Your task to perform on an android device: turn on showing notifications on the lock screen Image 0: 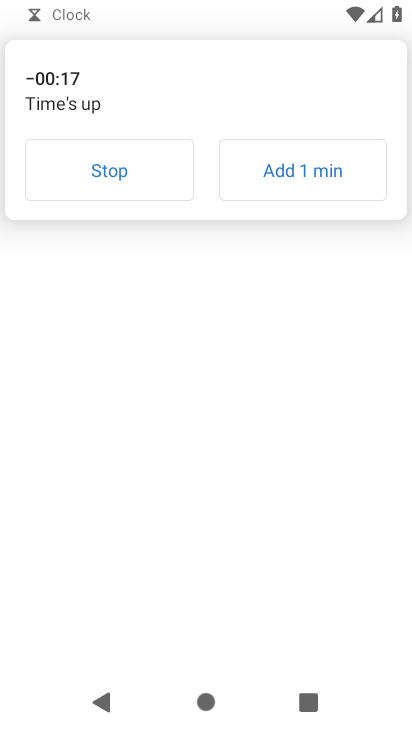
Step 0: press home button
Your task to perform on an android device: turn on showing notifications on the lock screen Image 1: 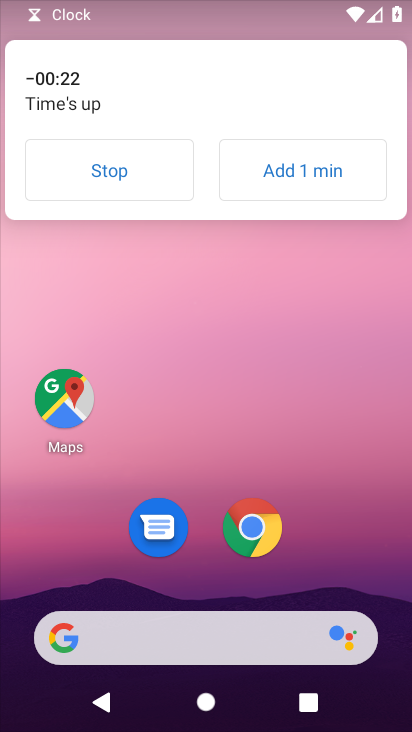
Step 1: click (119, 149)
Your task to perform on an android device: turn on showing notifications on the lock screen Image 2: 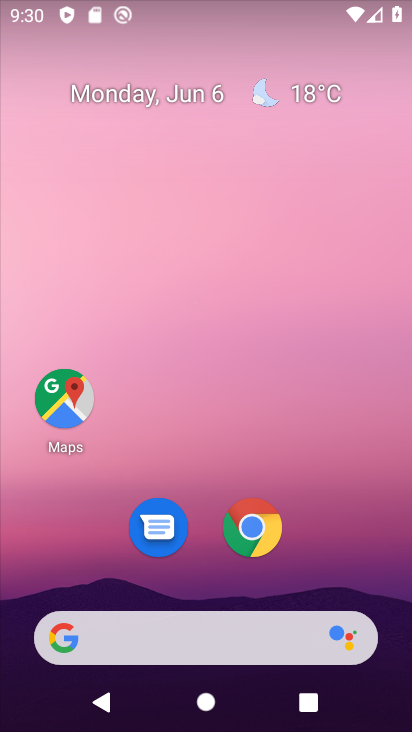
Step 2: drag from (219, 599) to (185, 207)
Your task to perform on an android device: turn on showing notifications on the lock screen Image 3: 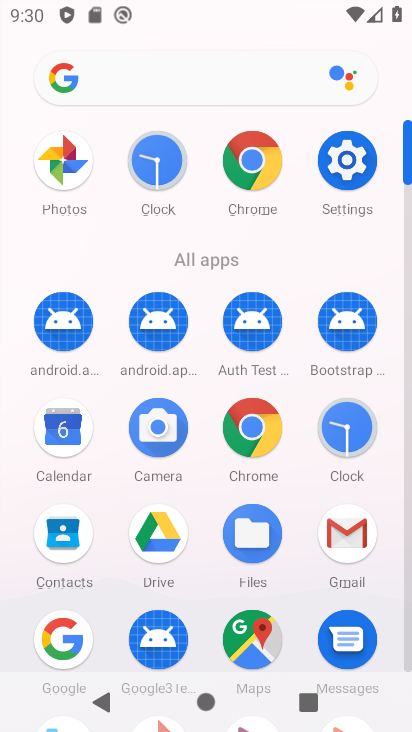
Step 3: click (336, 167)
Your task to perform on an android device: turn on showing notifications on the lock screen Image 4: 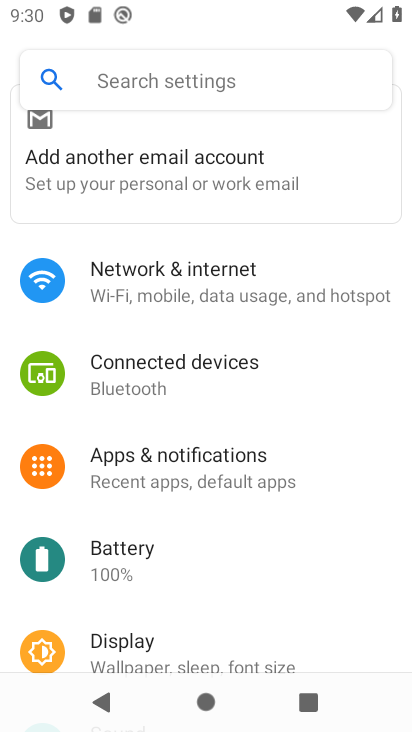
Step 4: click (170, 488)
Your task to perform on an android device: turn on showing notifications on the lock screen Image 5: 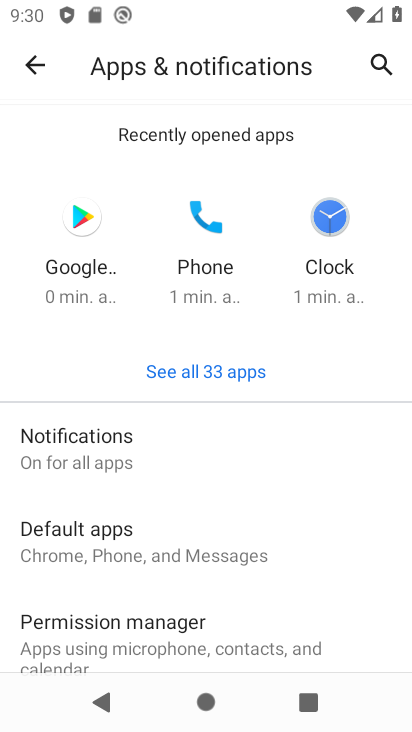
Step 5: click (124, 434)
Your task to perform on an android device: turn on showing notifications on the lock screen Image 6: 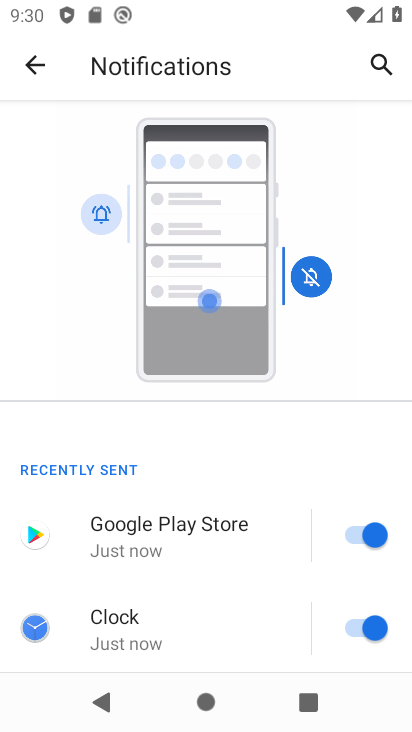
Step 6: drag from (191, 589) to (169, 75)
Your task to perform on an android device: turn on showing notifications on the lock screen Image 7: 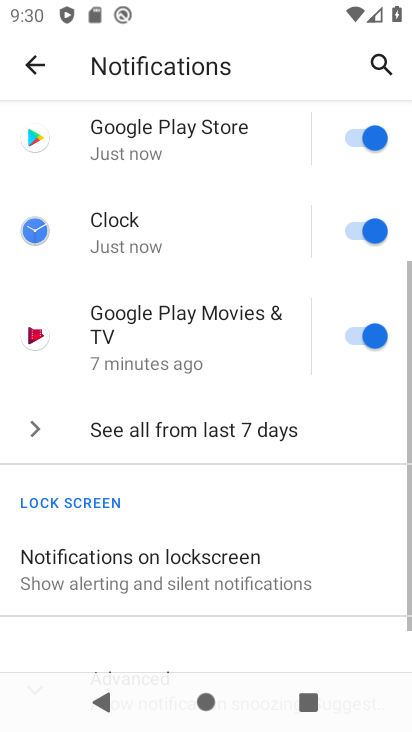
Step 7: click (137, 499)
Your task to perform on an android device: turn on showing notifications on the lock screen Image 8: 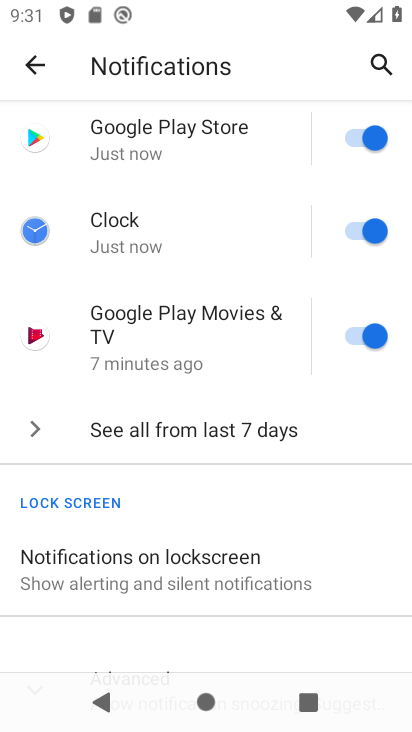
Step 8: click (131, 554)
Your task to perform on an android device: turn on showing notifications on the lock screen Image 9: 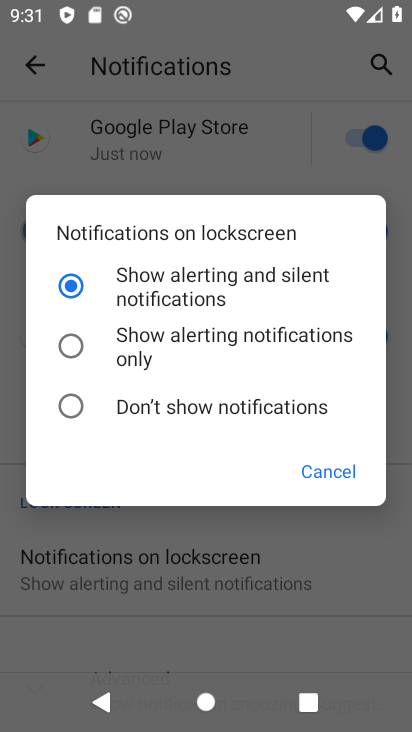
Step 9: click (212, 292)
Your task to perform on an android device: turn on showing notifications on the lock screen Image 10: 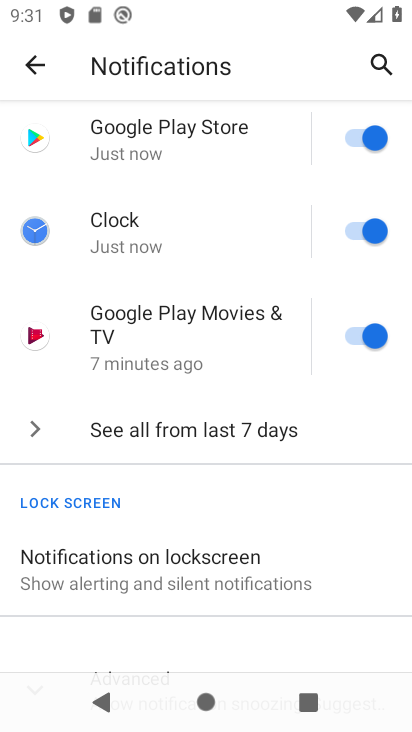
Step 10: task complete